Your task to perform on an android device: Open the web browser Image 0: 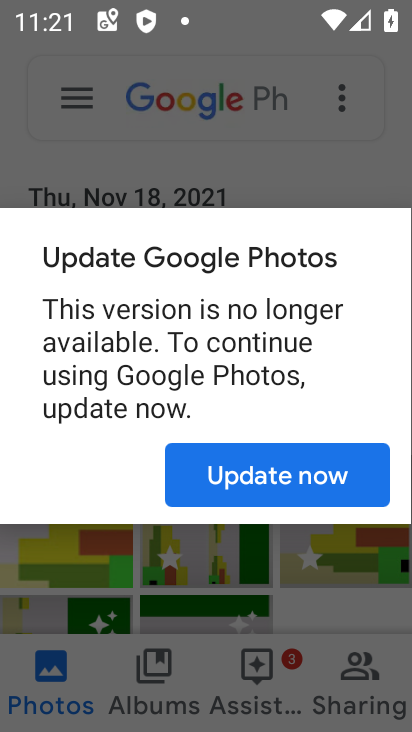
Step 0: press home button
Your task to perform on an android device: Open the web browser Image 1: 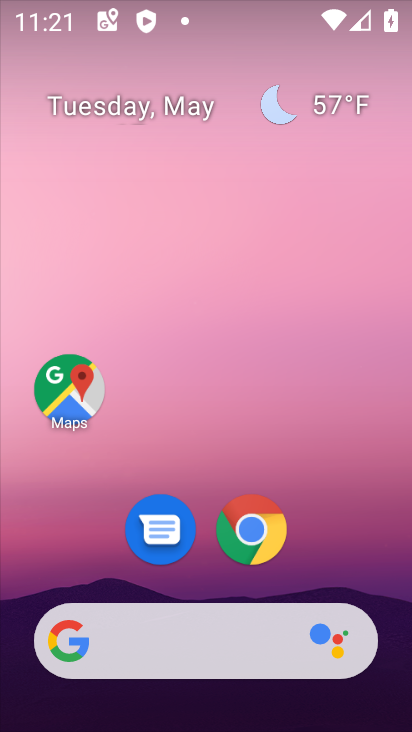
Step 1: click (239, 527)
Your task to perform on an android device: Open the web browser Image 2: 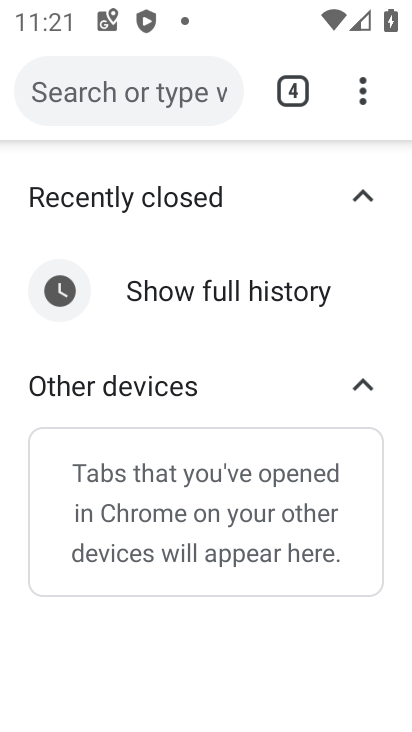
Step 2: task complete